Your task to perform on an android device: change the clock display to digital Image 0: 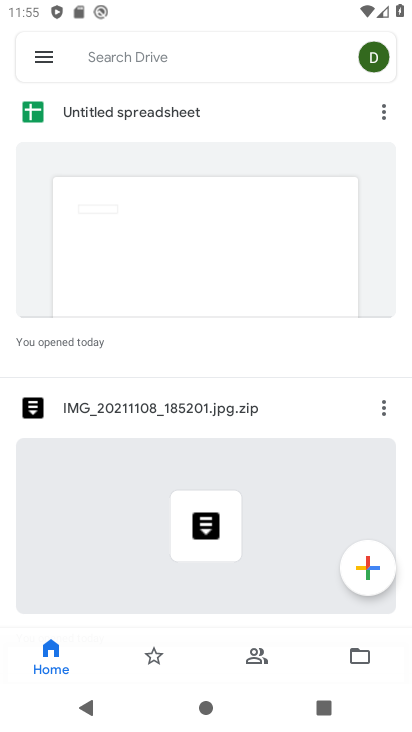
Step 0: press home button
Your task to perform on an android device: change the clock display to digital Image 1: 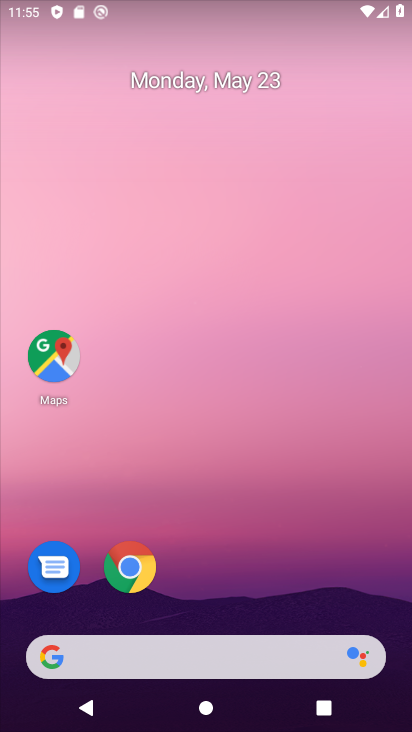
Step 1: drag from (293, 593) to (282, 217)
Your task to perform on an android device: change the clock display to digital Image 2: 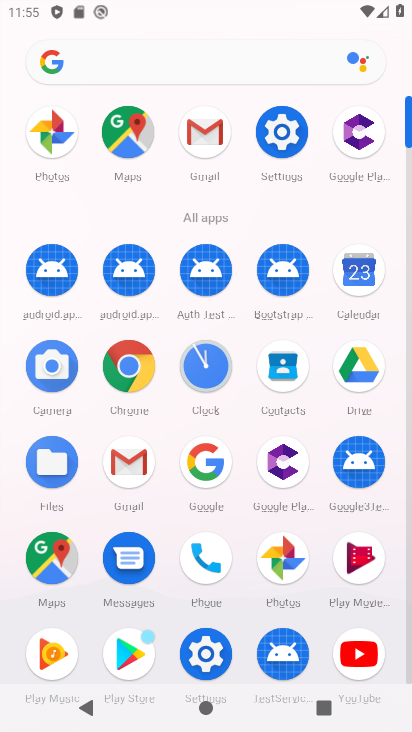
Step 2: click (211, 358)
Your task to perform on an android device: change the clock display to digital Image 3: 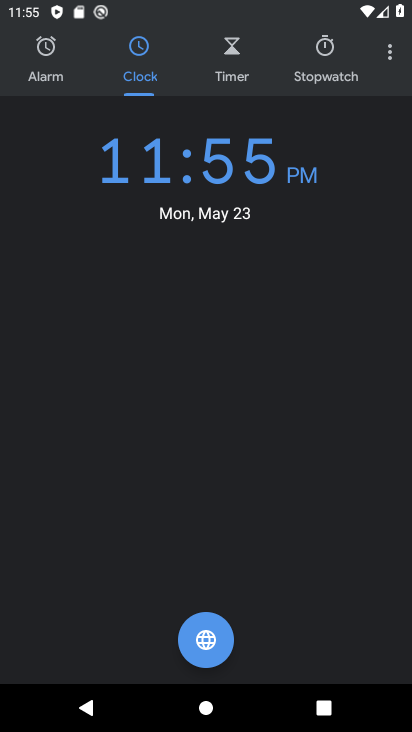
Step 3: click (378, 57)
Your task to perform on an android device: change the clock display to digital Image 4: 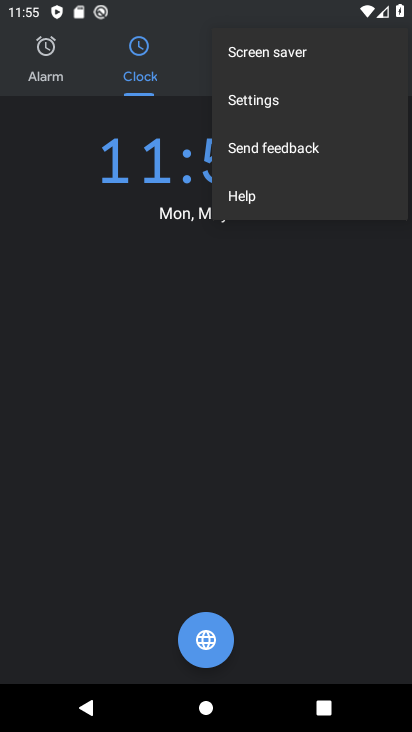
Step 4: click (344, 94)
Your task to perform on an android device: change the clock display to digital Image 5: 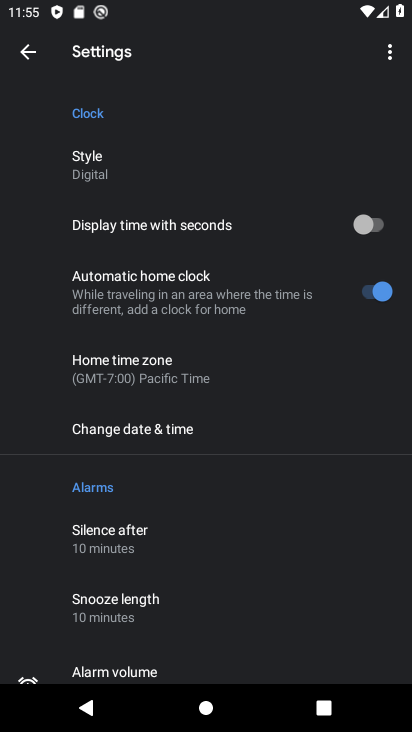
Step 5: click (257, 165)
Your task to perform on an android device: change the clock display to digital Image 6: 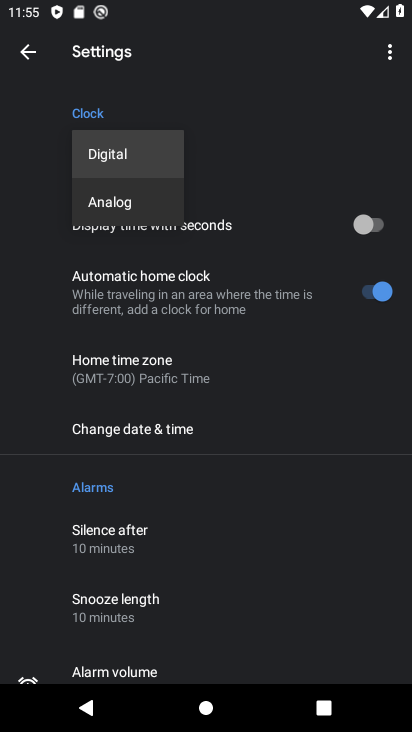
Step 6: task complete